Your task to perform on an android device: turn off priority inbox in the gmail app Image 0: 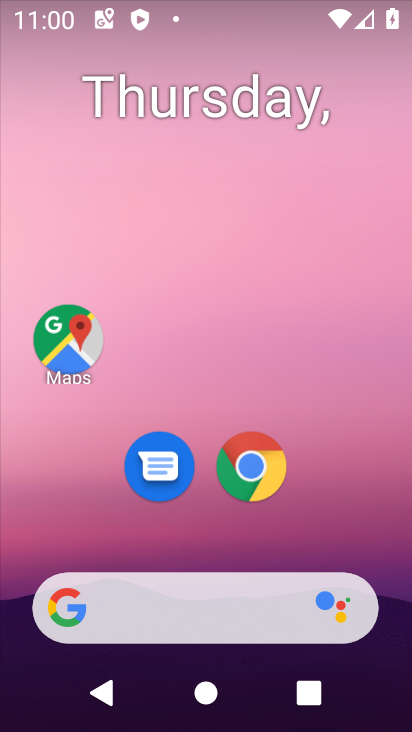
Step 0: drag from (219, 538) to (275, 17)
Your task to perform on an android device: turn off priority inbox in the gmail app Image 1: 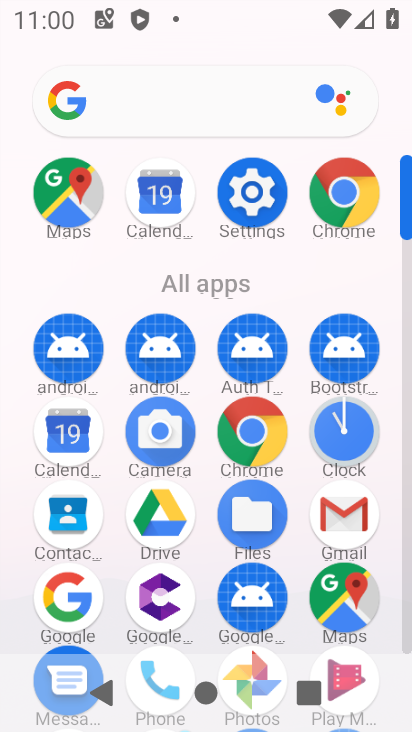
Step 1: click (339, 535)
Your task to perform on an android device: turn off priority inbox in the gmail app Image 2: 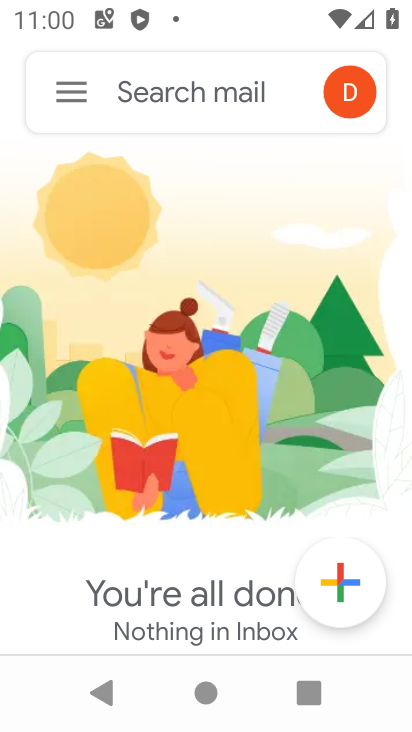
Step 2: click (57, 88)
Your task to perform on an android device: turn off priority inbox in the gmail app Image 3: 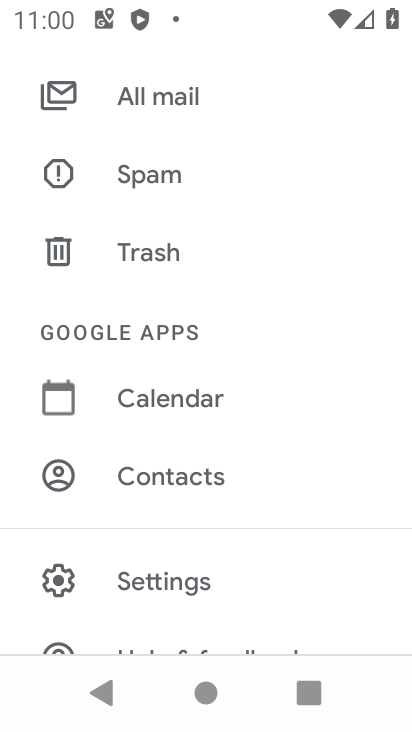
Step 3: click (108, 592)
Your task to perform on an android device: turn off priority inbox in the gmail app Image 4: 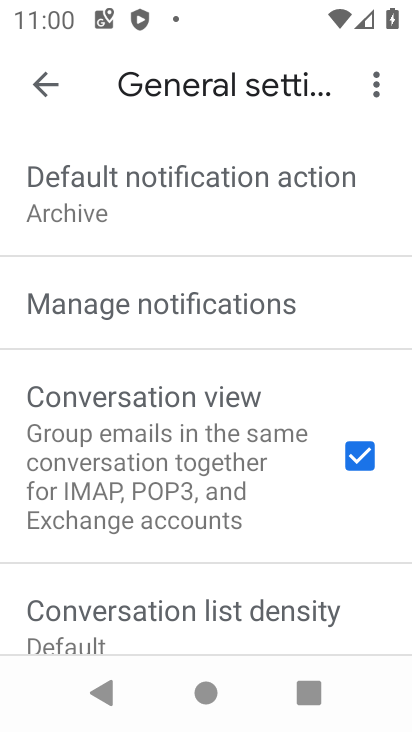
Step 4: drag from (183, 574) to (154, 263)
Your task to perform on an android device: turn off priority inbox in the gmail app Image 5: 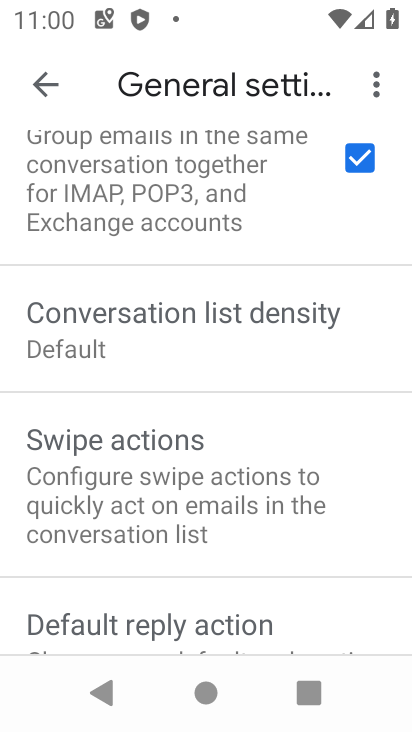
Step 5: click (35, 95)
Your task to perform on an android device: turn off priority inbox in the gmail app Image 6: 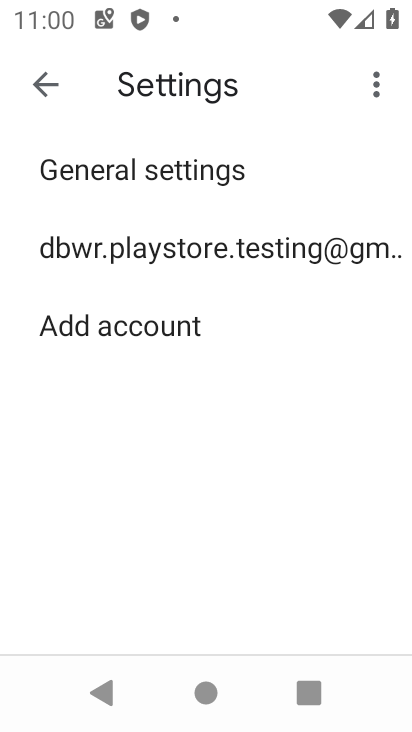
Step 6: click (80, 223)
Your task to perform on an android device: turn off priority inbox in the gmail app Image 7: 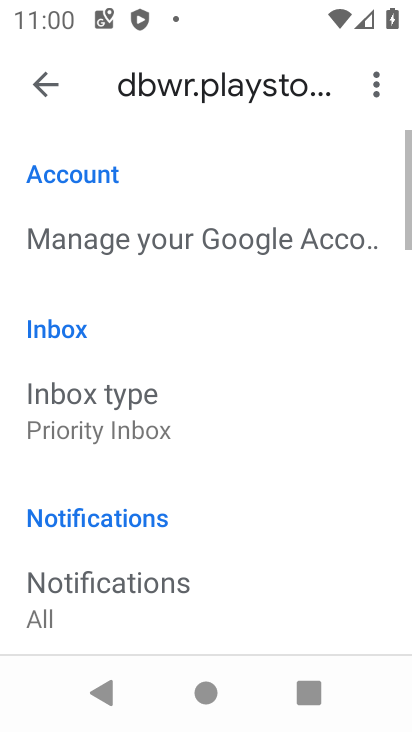
Step 7: click (67, 397)
Your task to perform on an android device: turn off priority inbox in the gmail app Image 8: 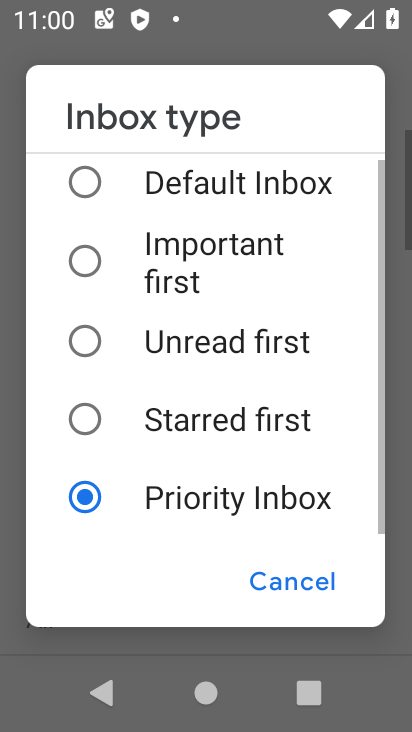
Step 8: click (130, 203)
Your task to perform on an android device: turn off priority inbox in the gmail app Image 9: 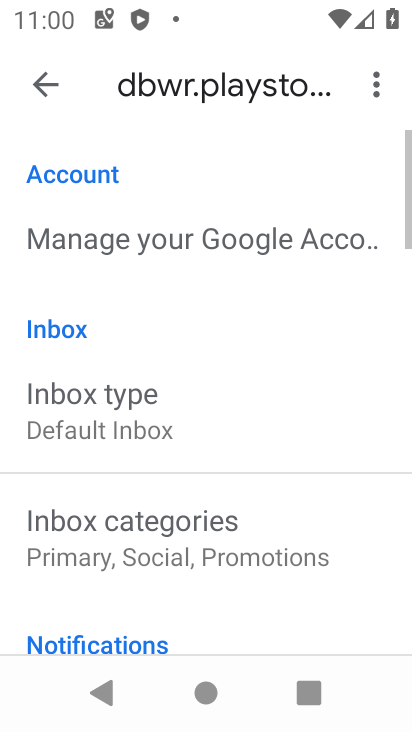
Step 9: task complete